Your task to perform on an android device: Go to Google maps Image 0: 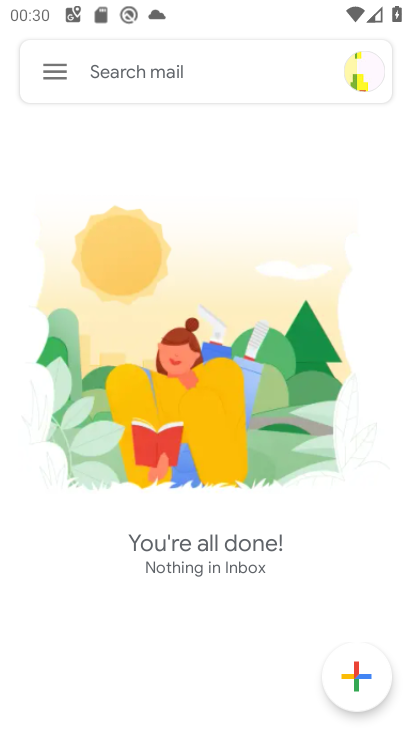
Step 0: press home button
Your task to perform on an android device: Go to Google maps Image 1: 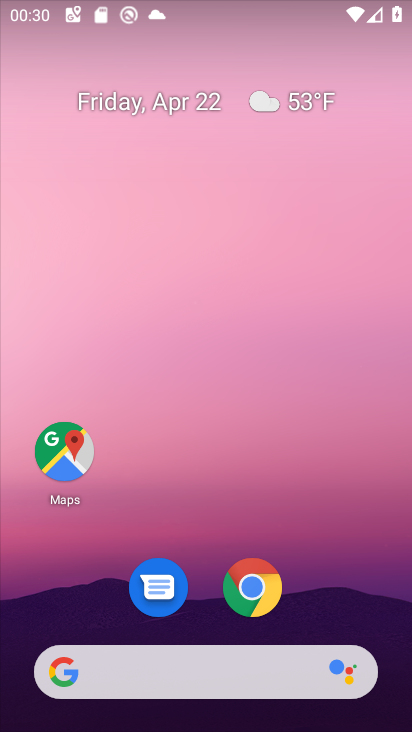
Step 1: click (70, 448)
Your task to perform on an android device: Go to Google maps Image 2: 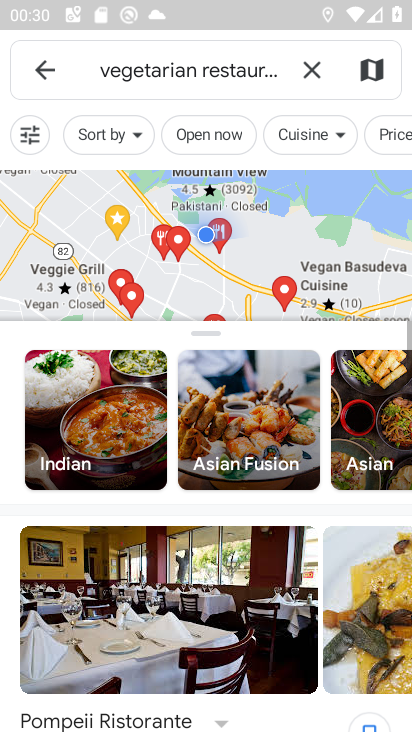
Step 2: task complete